Your task to perform on an android device: Open settings Image 0: 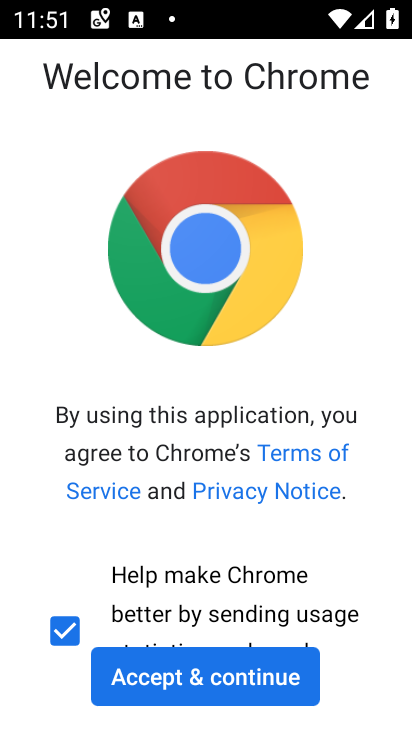
Step 0: press home button
Your task to perform on an android device: Open settings Image 1: 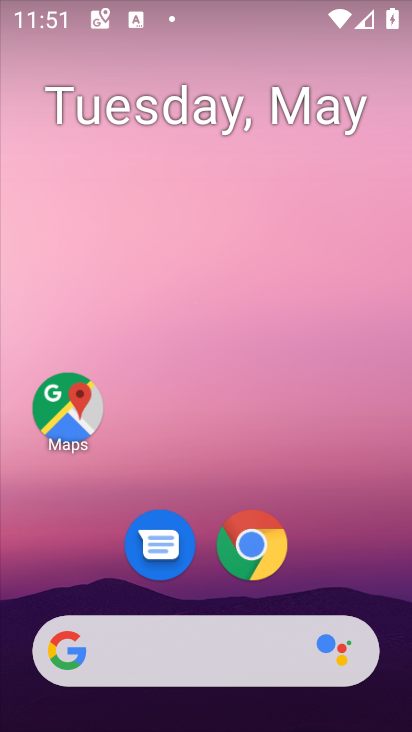
Step 1: drag from (183, 516) to (208, 176)
Your task to perform on an android device: Open settings Image 2: 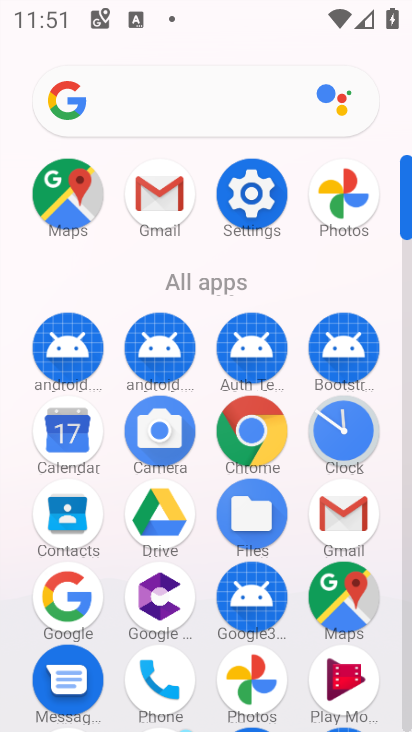
Step 2: click (251, 188)
Your task to perform on an android device: Open settings Image 3: 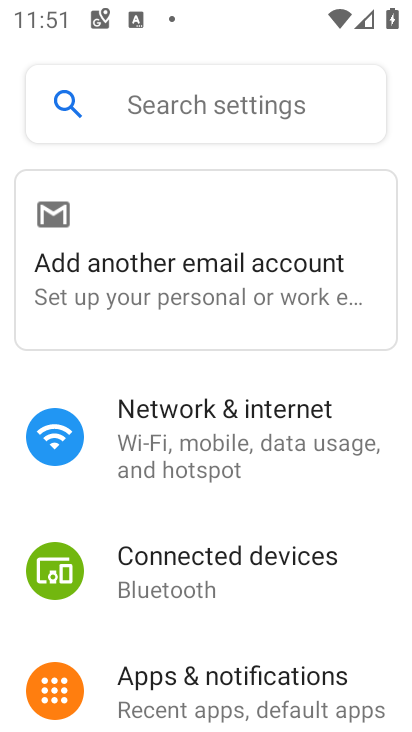
Step 3: task complete